Your task to perform on an android device: turn off data saver in the chrome app Image 0: 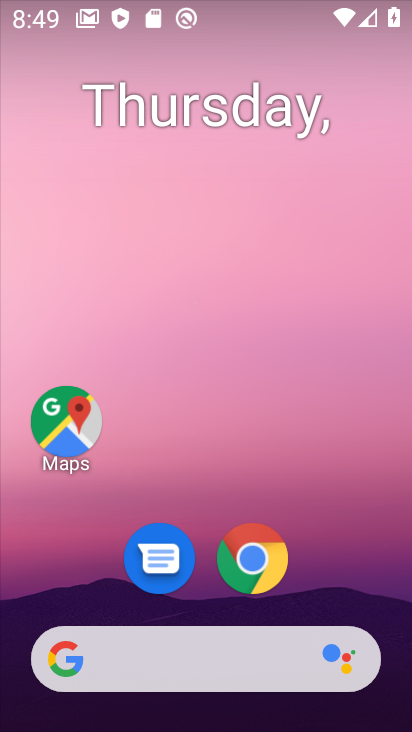
Step 0: click (246, 555)
Your task to perform on an android device: turn off data saver in the chrome app Image 1: 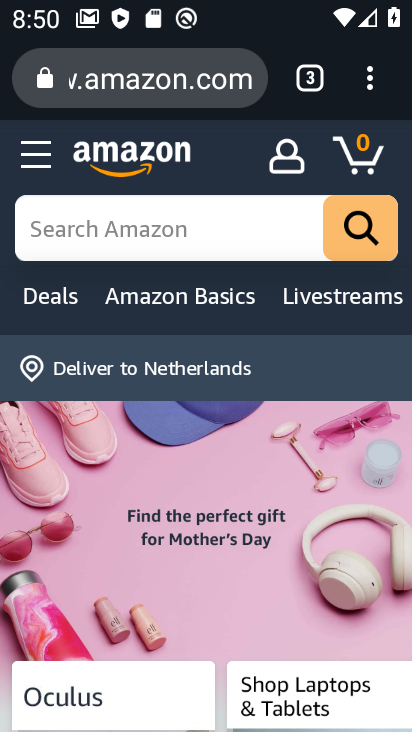
Step 1: click (365, 82)
Your task to perform on an android device: turn off data saver in the chrome app Image 2: 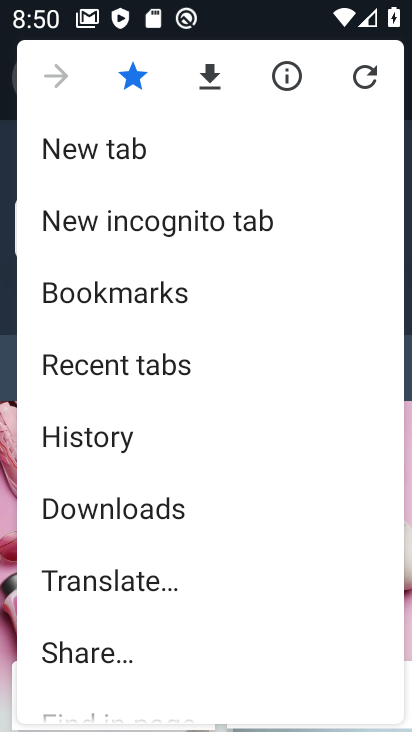
Step 2: drag from (219, 591) to (235, 209)
Your task to perform on an android device: turn off data saver in the chrome app Image 3: 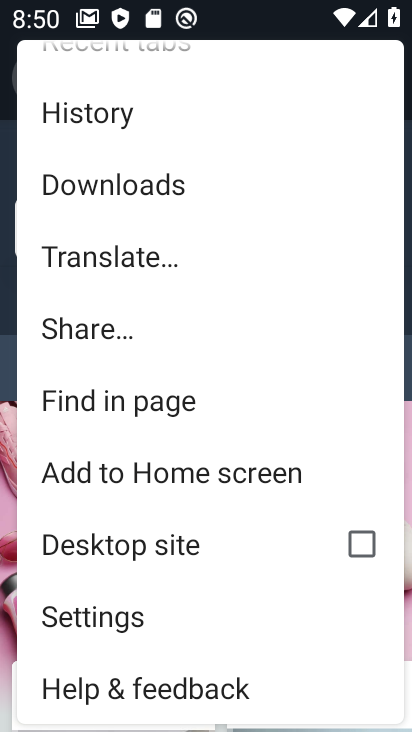
Step 3: click (115, 622)
Your task to perform on an android device: turn off data saver in the chrome app Image 4: 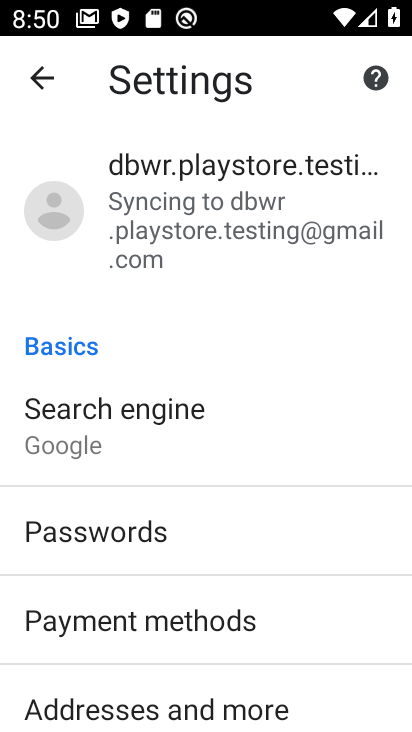
Step 4: drag from (295, 610) to (261, 249)
Your task to perform on an android device: turn off data saver in the chrome app Image 5: 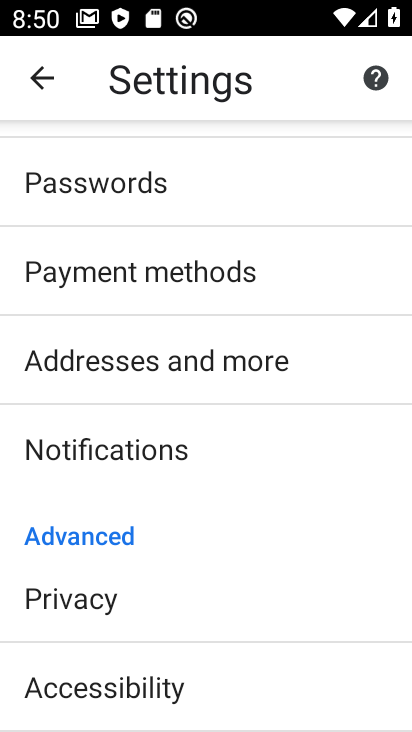
Step 5: drag from (242, 629) to (288, 67)
Your task to perform on an android device: turn off data saver in the chrome app Image 6: 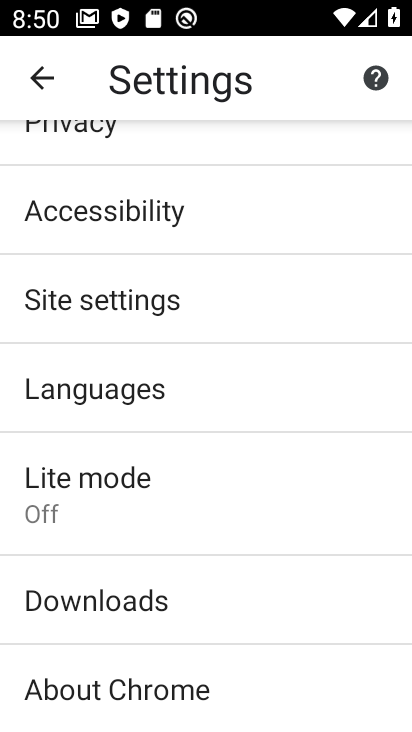
Step 6: click (40, 500)
Your task to perform on an android device: turn off data saver in the chrome app Image 7: 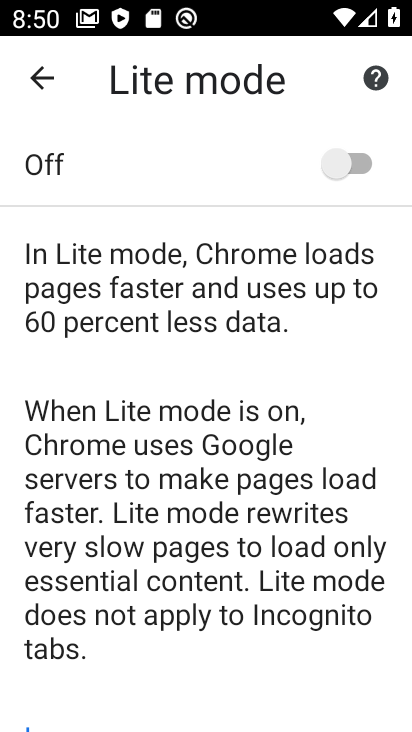
Step 7: task complete